Your task to perform on an android device: turn off javascript in the chrome app Image 0: 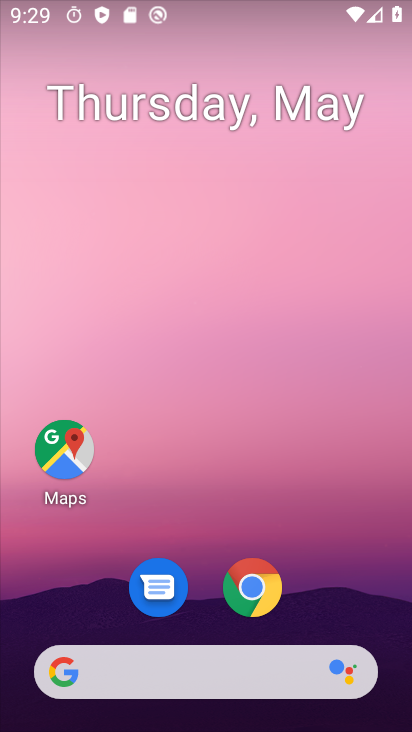
Step 0: click (251, 596)
Your task to perform on an android device: turn off javascript in the chrome app Image 1: 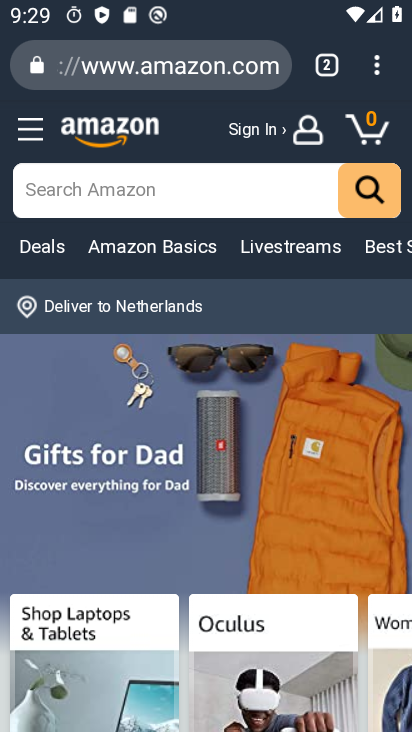
Step 1: click (376, 68)
Your task to perform on an android device: turn off javascript in the chrome app Image 2: 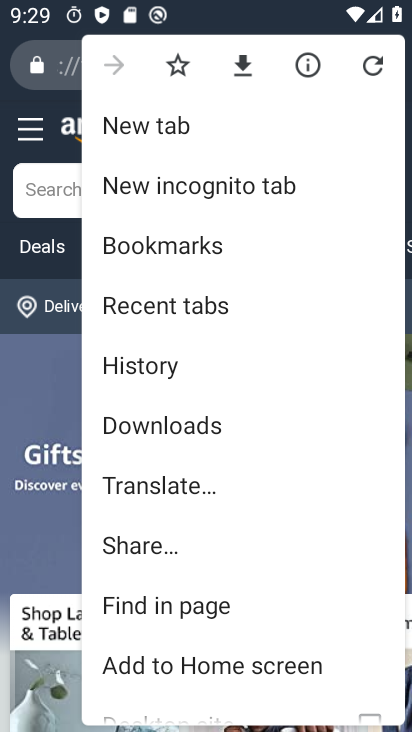
Step 2: drag from (229, 599) to (221, 158)
Your task to perform on an android device: turn off javascript in the chrome app Image 3: 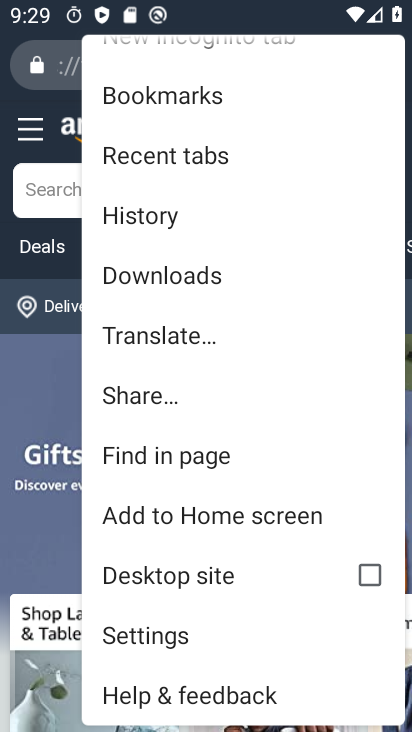
Step 3: click (140, 637)
Your task to perform on an android device: turn off javascript in the chrome app Image 4: 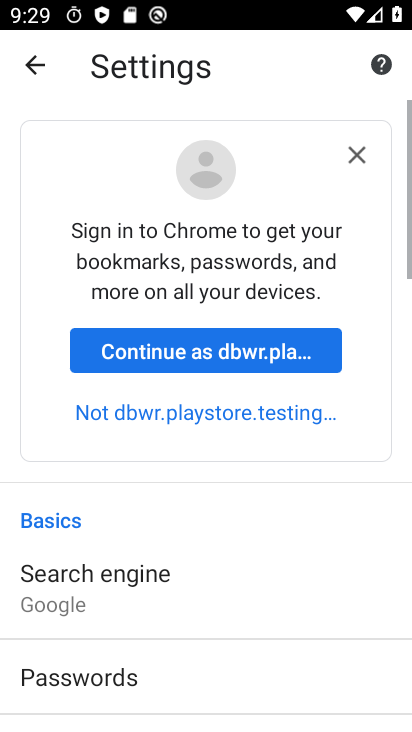
Step 4: drag from (202, 640) to (229, 79)
Your task to perform on an android device: turn off javascript in the chrome app Image 5: 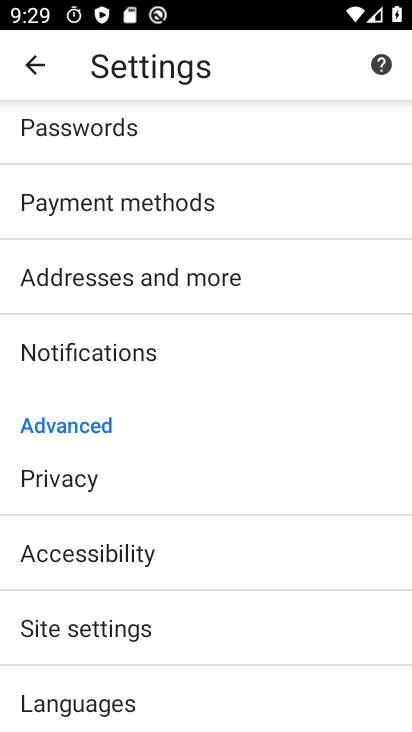
Step 5: drag from (223, 564) to (220, 308)
Your task to perform on an android device: turn off javascript in the chrome app Image 6: 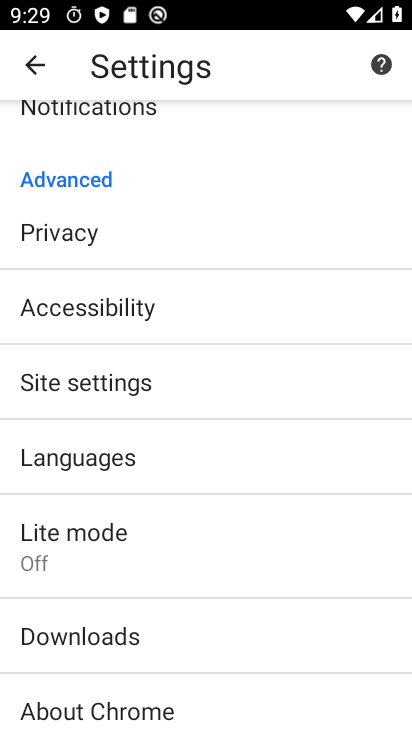
Step 6: click (124, 390)
Your task to perform on an android device: turn off javascript in the chrome app Image 7: 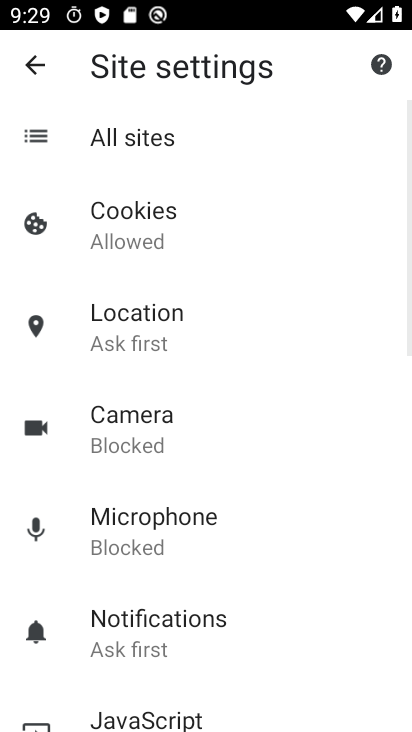
Step 7: drag from (254, 626) to (240, 307)
Your task to perform on an android device: turn off javascript in the chrome app Image 8: 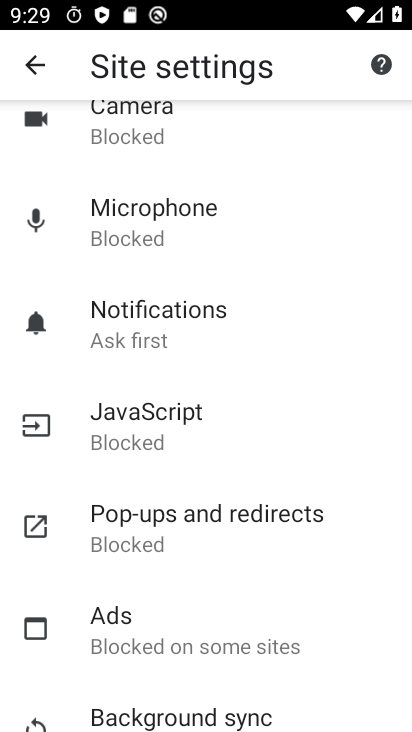
Step 8: click (129, 433)
Your task to perform on an android device: turn off javascript in the chrome app Image 9: 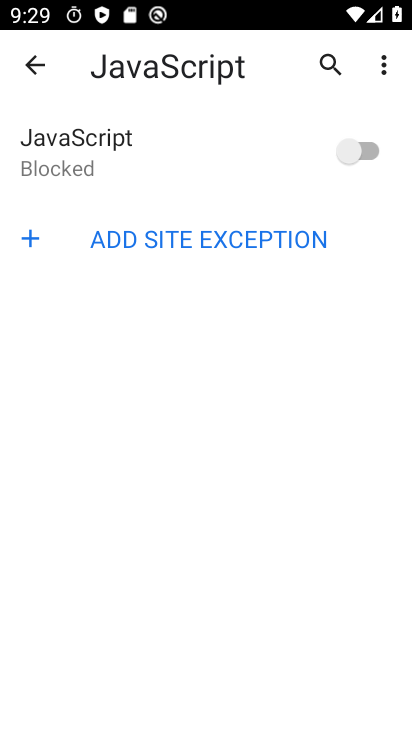
Step 9: task complete